Your task to perform on an android device: open device folders in google photos Image 0: 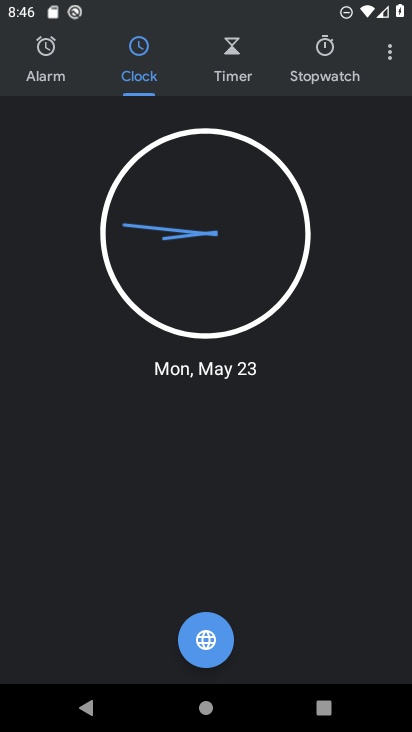
Step 0: click (326, 74)
Your task to perform on an android device: open device folders in google photos Image 1: 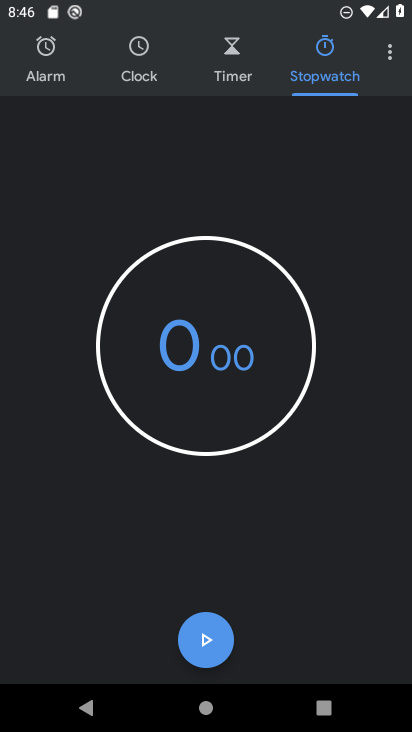
Step 1: drag from (277, 505) to (307, 252)
Your task to perform on an android device: open device folders in google photos Image 2: 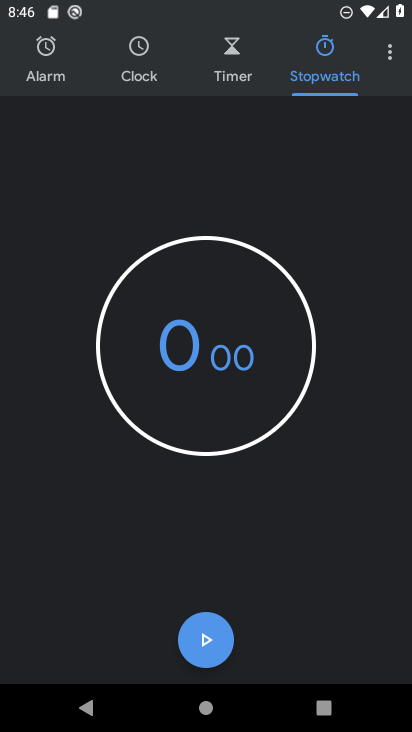
Step 2: drag from (336, 495) to (338, 194)
Your task to perform on an android device: open device folders in google photos Image 3: 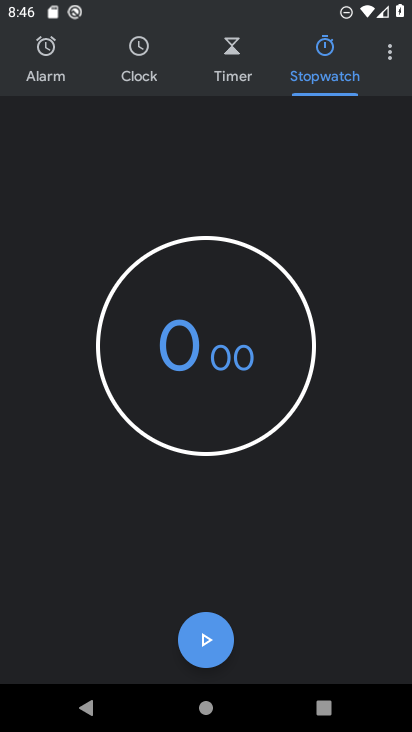
Step 3: drag from (342, 462) to (349, 229)
Your task to perform on an android device: open device folders in google photos Image 4: 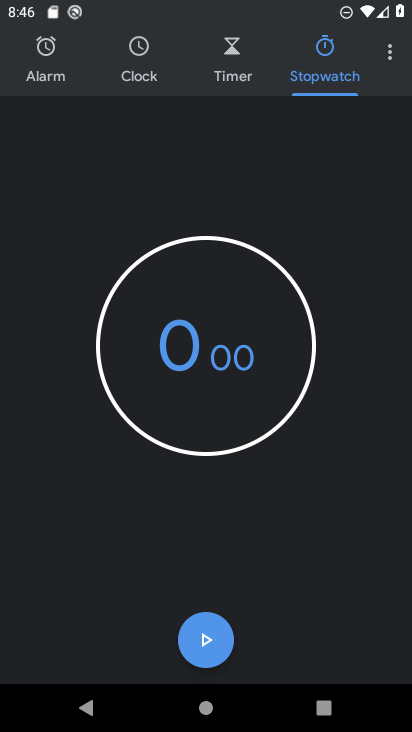
Step 4: press home button
Your task to perform on an android device: open device folders in google photos Image 5: 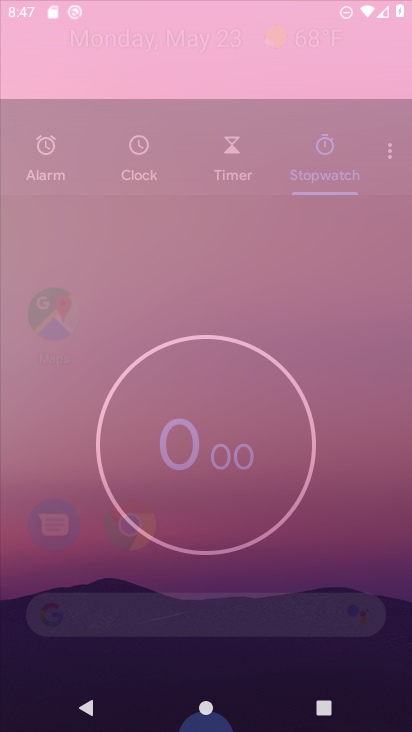
Step 5: drag from (286, 552) to (376, 48)
Your task to perform on an android device: open device folders in google photos Image 6: 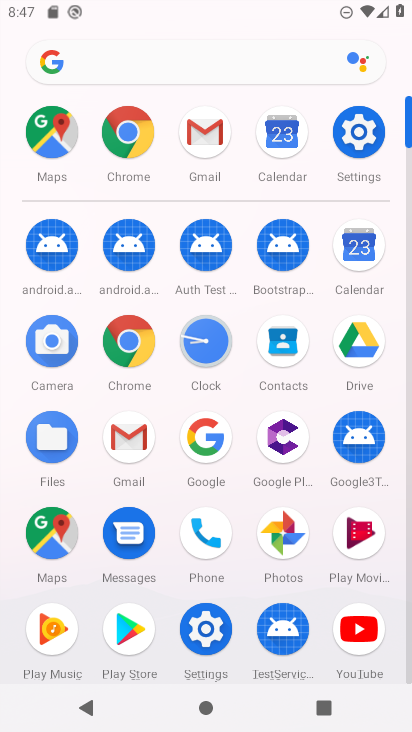
Step 6: click (288, 528)
Your task to perform on an android device: open device folders in google photos Image 7: 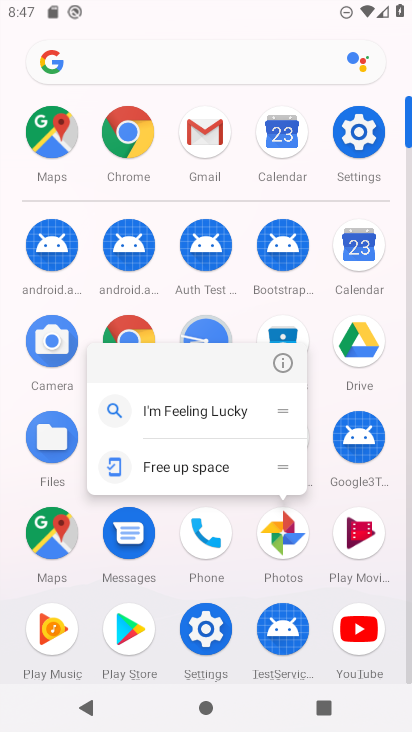
Step 7: click (272, 356)
Your task to perform on an android device: open device folders in google photos Image 8: 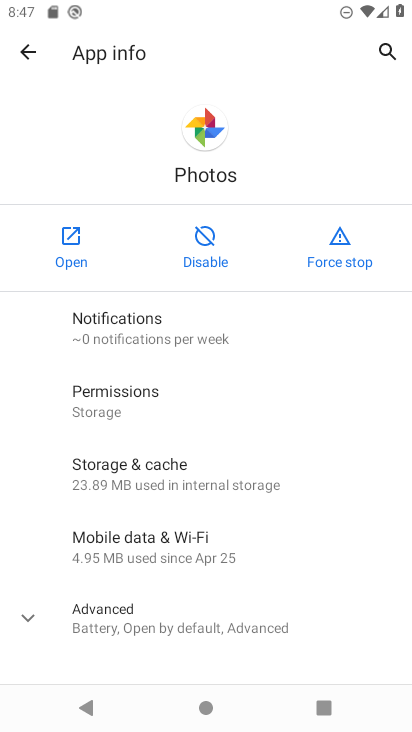
Step 8: click (79, 246)
Your task to perform on an android device: open device folders in google photos Image 9: 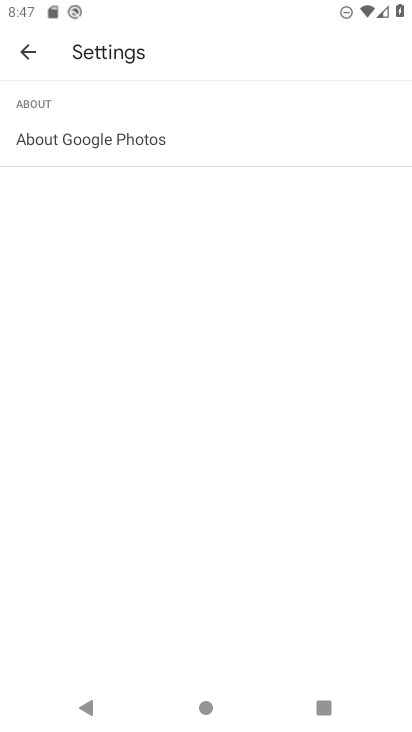
Step 9: click (16, 54)
Your task to perform on an android device: open device folders in google photos Image 10: 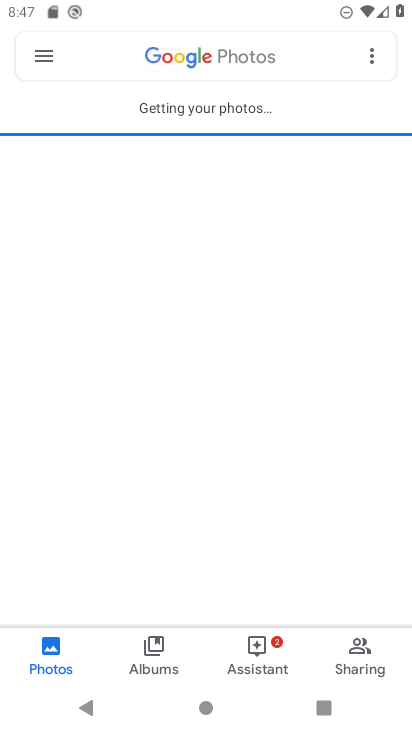
Step 10: click (52, 63)
Your task to perform on an android device: open device folders in google photos Image 11: 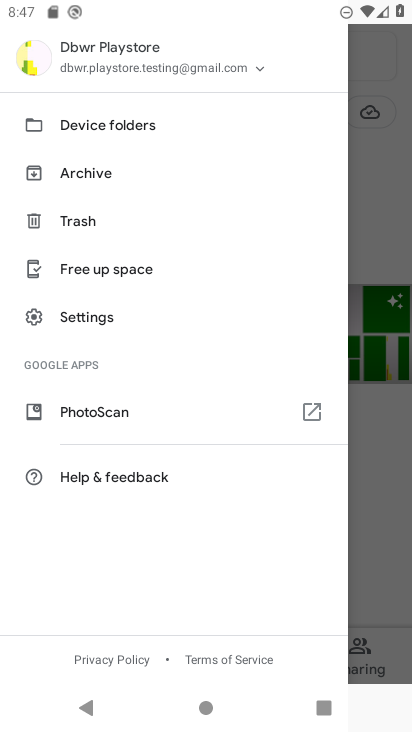
Step 11: click (91, 126)
Your task to perform on an android device: open device folders in google photos Image 12: 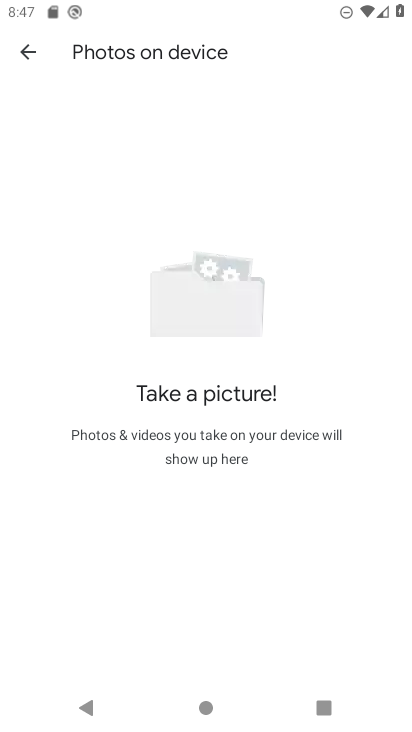
Step 12: task complete